Your task to perform on an android device: Open sound settings Image 0: 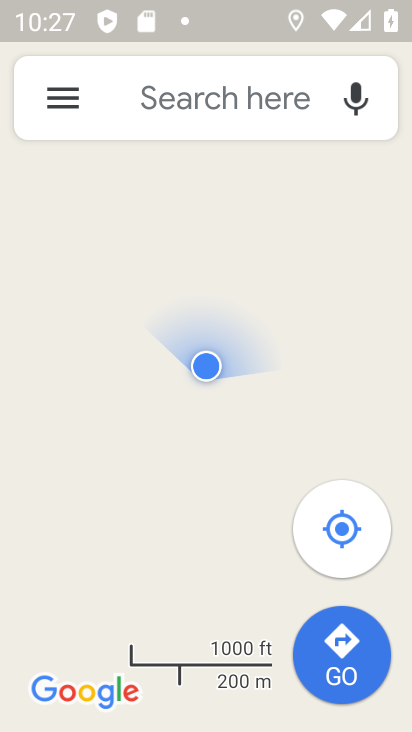
Step 0: press home button
Your task to perform on an android device: Open sound settings Image 1: 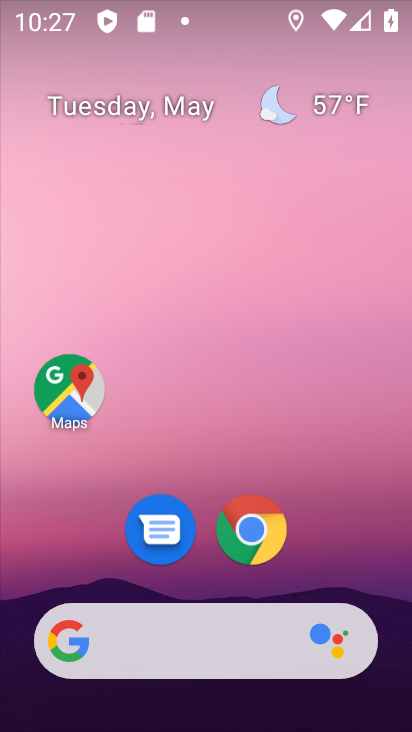
Step 1: drag from (209, 583) to (211, 278)
Your task to perform on an android device: Open sound settings Image 2: 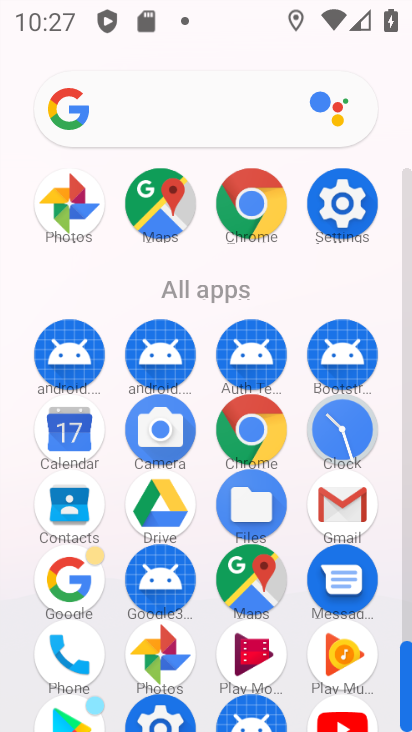
Step 2: click (334, 209)
Your task to perform on an android device: Open sound settings Image 3: 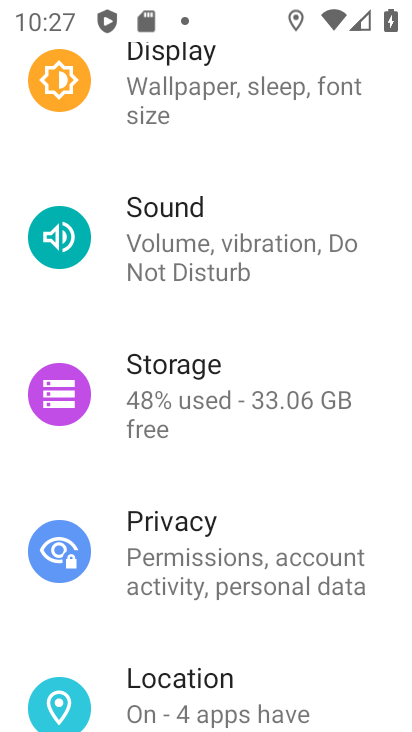
Step 3: click (209, 233)
Your task to perform on an android device: Open sound settings Image 4: 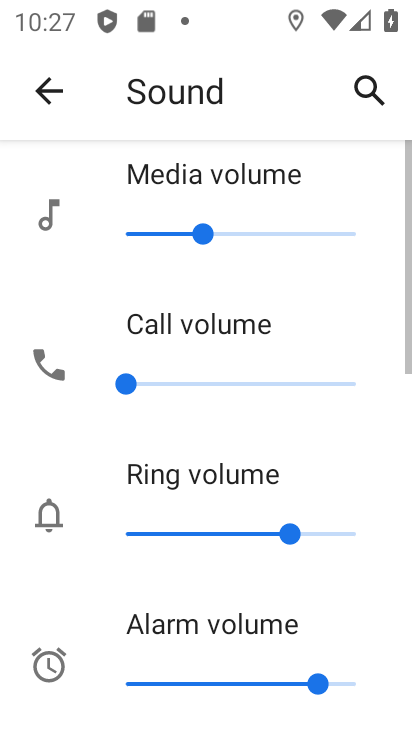
Step 4: task complete